Your task to perform on an android device: See recent photos Image 0: 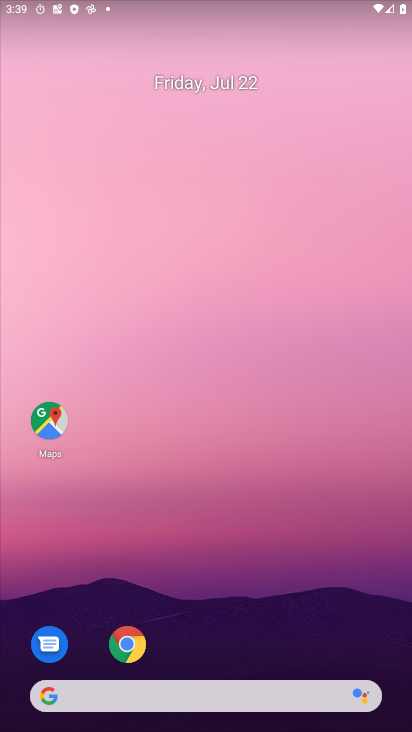
Step 0: drag from (212, 658) to (228, 101)
Your task to perform on an android device: See recent photos Image 1: 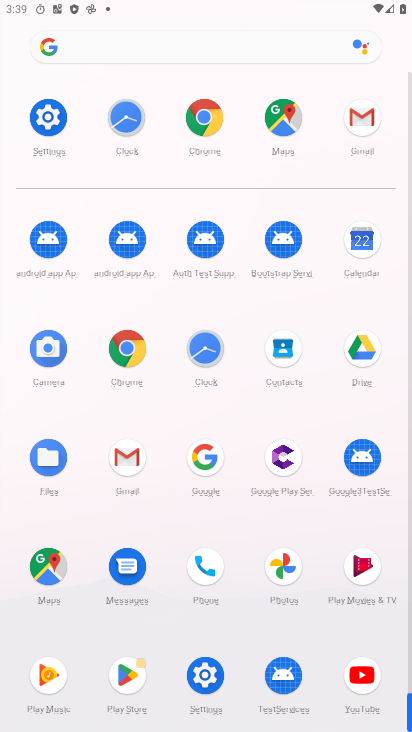
Step 1: drag from (236, 554) to (279, 185)
Your task to perform on an android device: See recent photos Image 2: 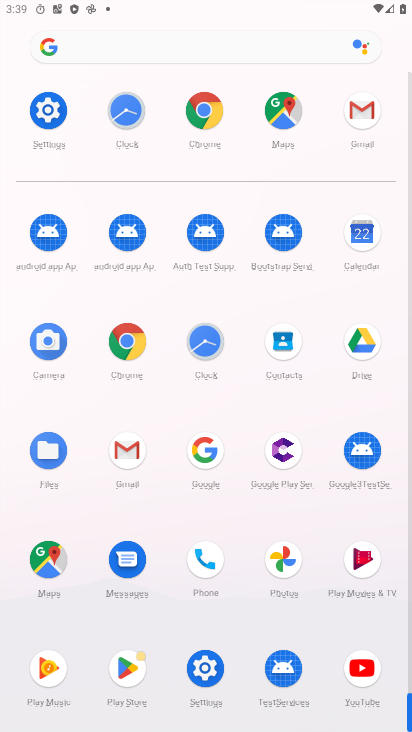
Step 2: click (202, 682)
Your task to perform on an android device: See recent photos Image 3: 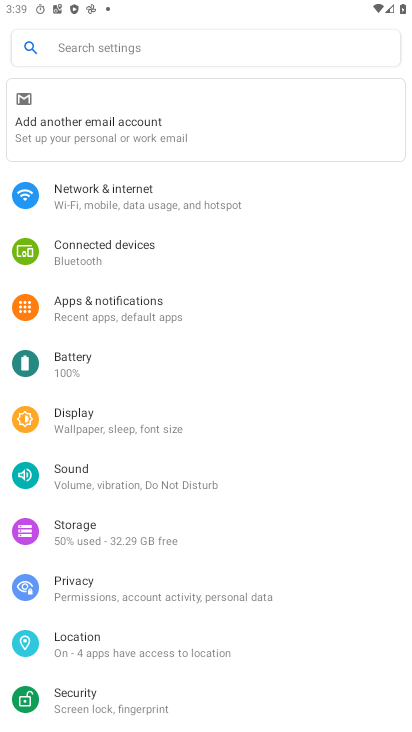
Step 3: press home button
Your task to perform on an android device: See recent photos Image 4: 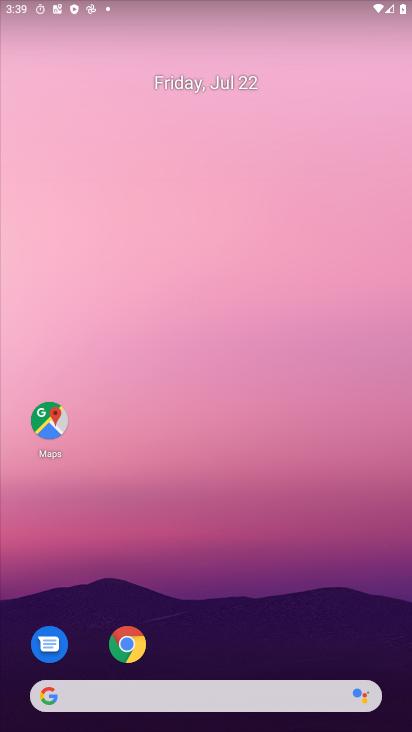
Step 4: drag from (202, 693) to (262, 156)
Your task to perform on an android device: See recent photos Image 5: 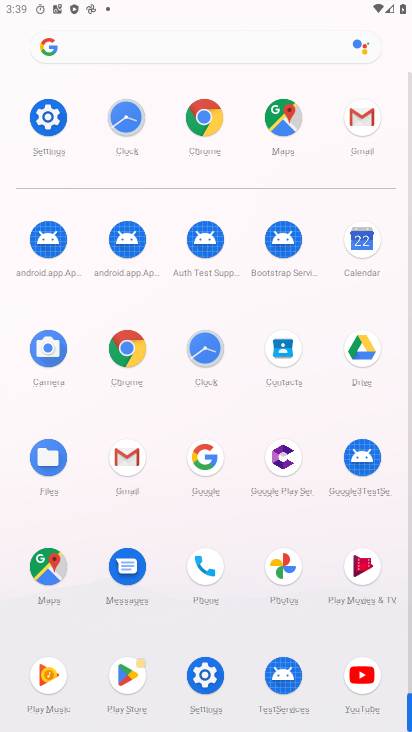
Step 5: click (288, 576)
Your task to perform on an android device: See recent photos Image 6: 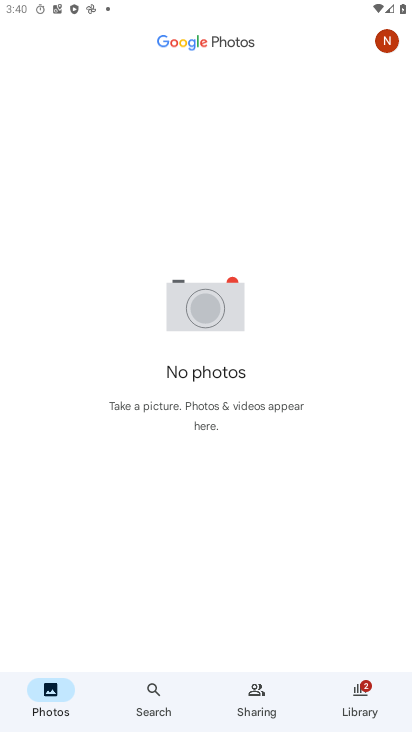
Step 6: task complete